Your task to perform on an android device: open wifi settings Image 0: 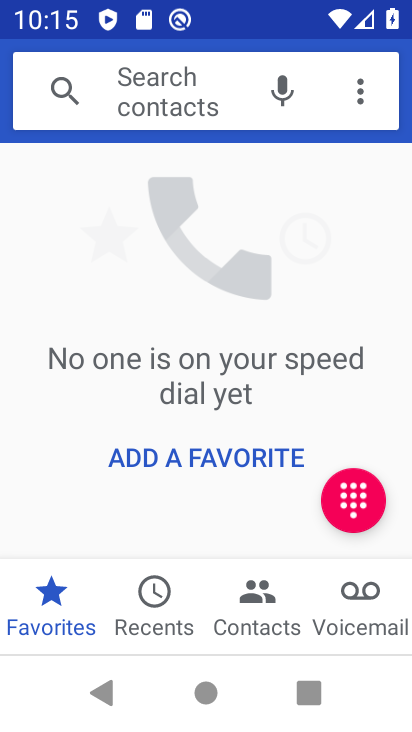
Step 0: press back button
Your task to perform on an android device: open wifi settings Image 1: 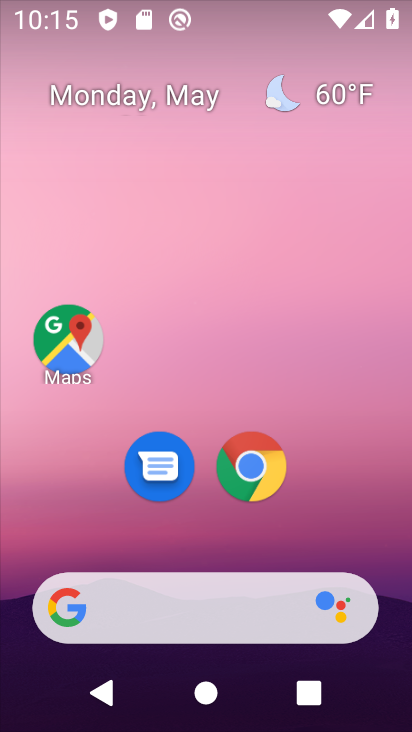
Step 1: drag from (251, 703) to (209, 207)
Your task to perform on an android device: open wifi settings Image 2: 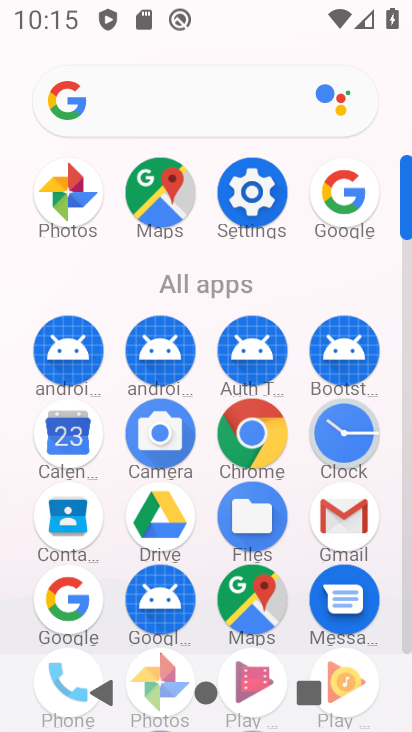
Step 2: click (236, 198)
Your task to perform on an android device: open wifi settings Image 3: 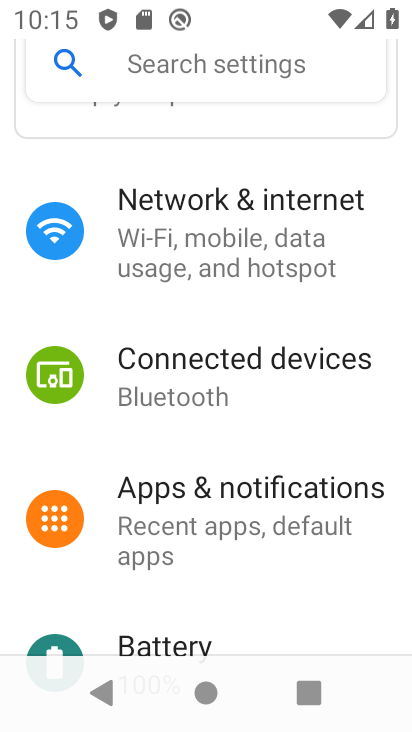
Step 3: click (239, 244)
Your task to perform on an android device: open wifi settings Image 4: 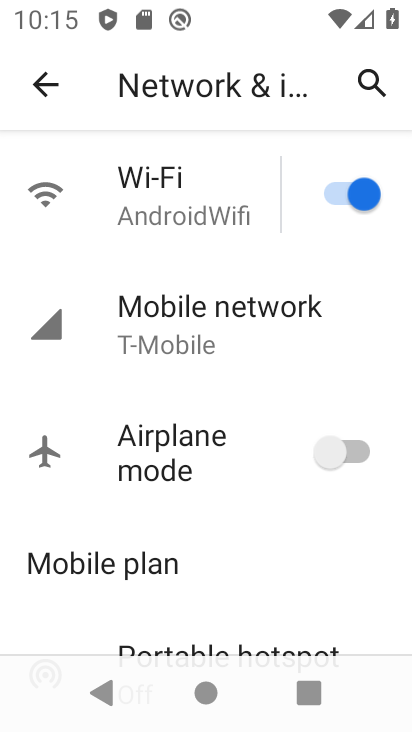
Step 4: task complete